Your task to perform on an android device: set the timer Image 0: 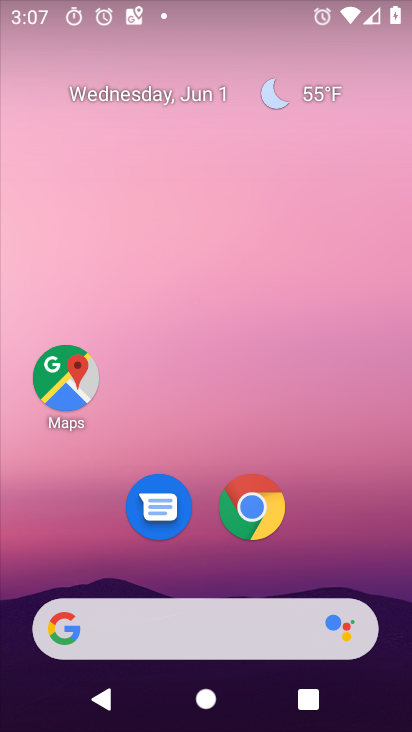
Step 0: drag from (338, 570) to (290, 1)
Your task to perform on an android device: set the timer Image 1: 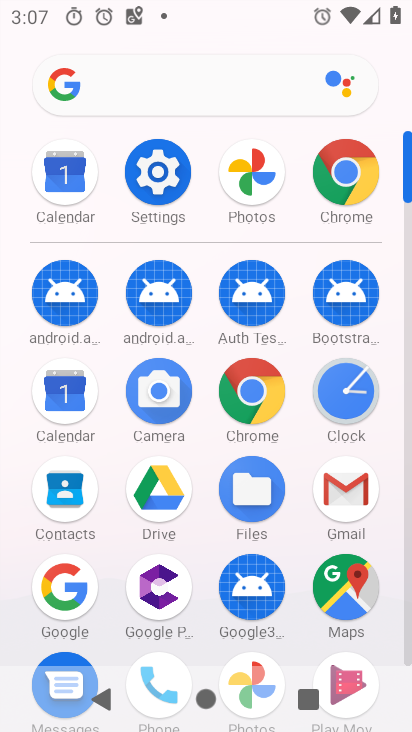
Step 1: click (334, 396)
Your task to perform on an android device: set the timer Image 2: 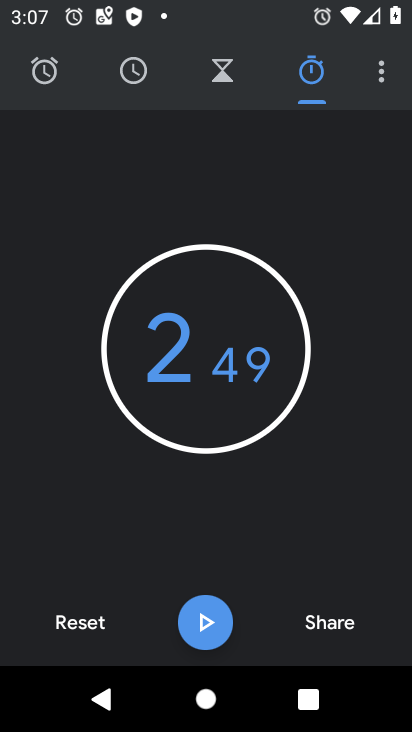
Step 2: click (222, 83)
Your task to perform on an android device: set the timer Image 3: 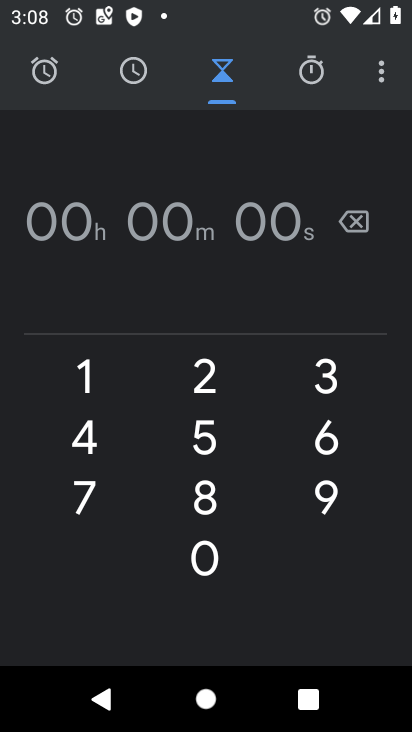
Step 3: click (209, 486)
Your task to perform on an android device: set the timer Image 4: 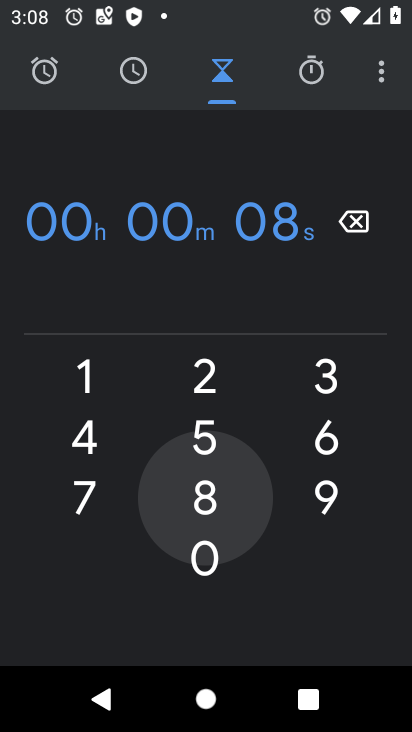
Step 4: click (201, 566)
Your task to perform on an android device: set the timer Image 5: 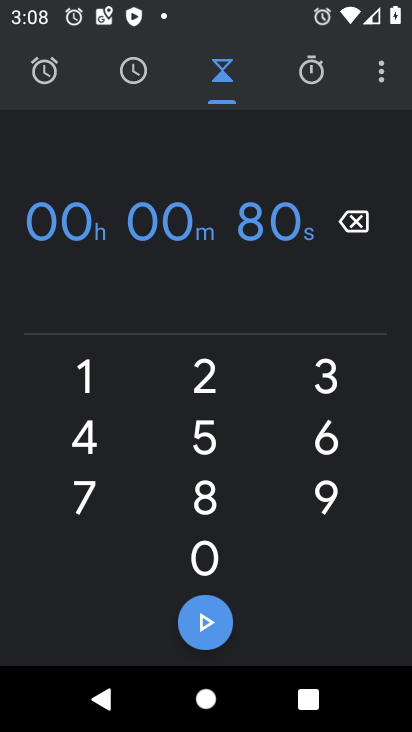
Step 5: click (197, 624)
Your task to perform on an android device: set the timer Image 6: 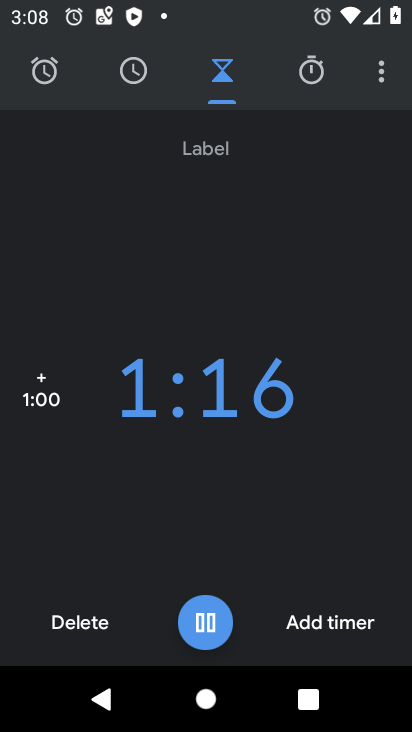
Step 6: task complete